Your task to perform on an android device: set the timer Image 0: 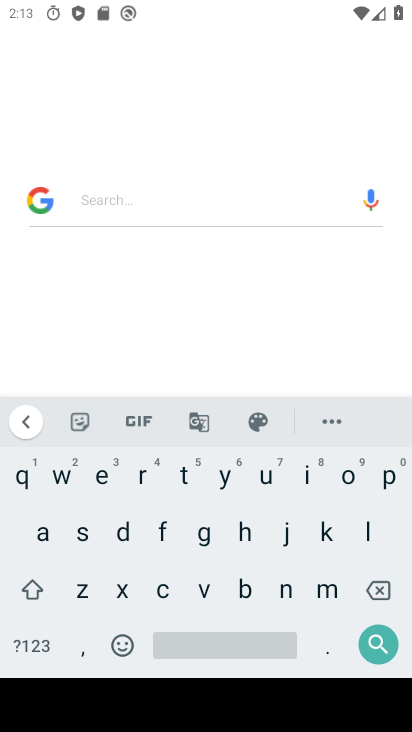
Step 0: click (107, 715)
Your task to perform on an android device: set the timer Image 1: 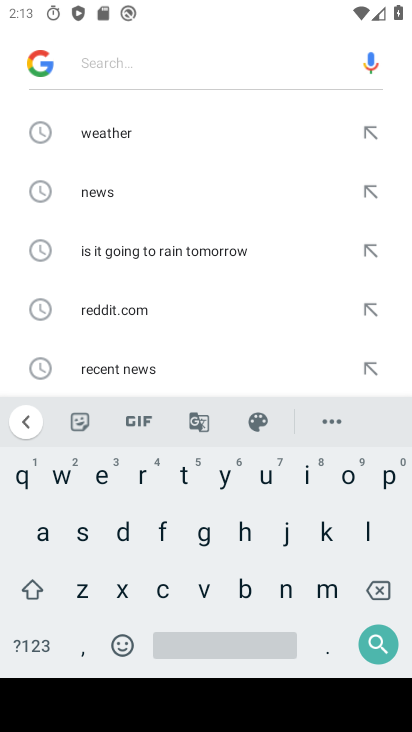
Step 1: press home button
Your task to perform on an android device: set the timer Image 2: 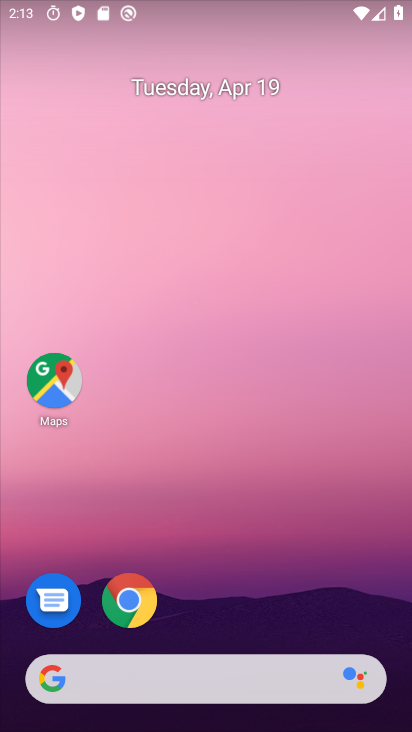
Step 2: drag from (226, 717) to (350, 390)
Your task to perform on an android device: set the timer Image 3: 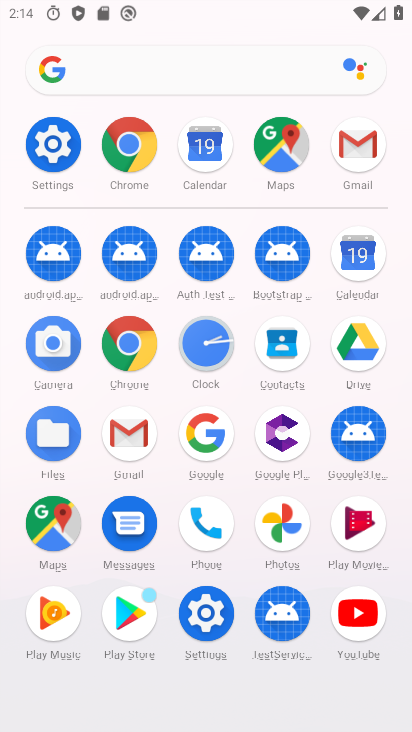
Step 3: click (220, 339)
Your task to perform on an android device: set the timer Image 4: 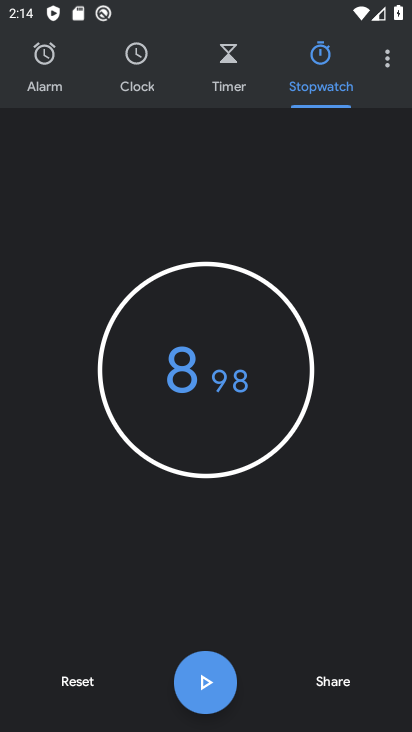
Step 4: click (245, 95)
Your task to perform on an android device: set the timer Image 5: 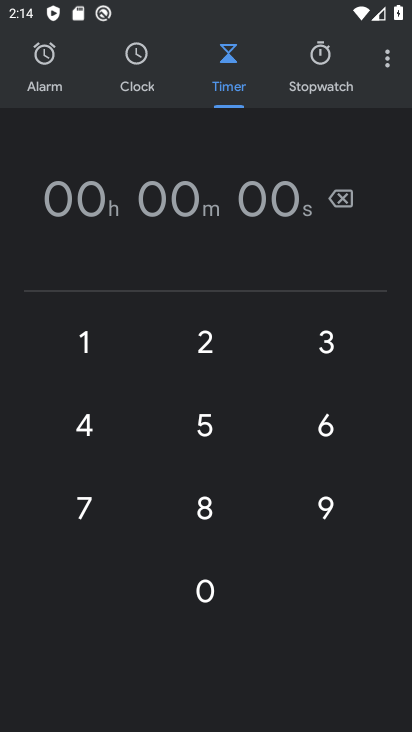
Step 5: click (231, 348)
Your task to perform on an android device: set the timer Image 6: 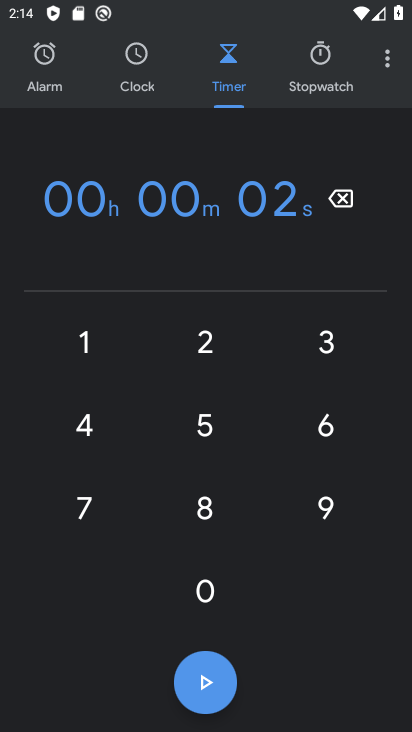
Step 6: click (190, 435)
Your task to perform on an android device: set the timer Image 7: 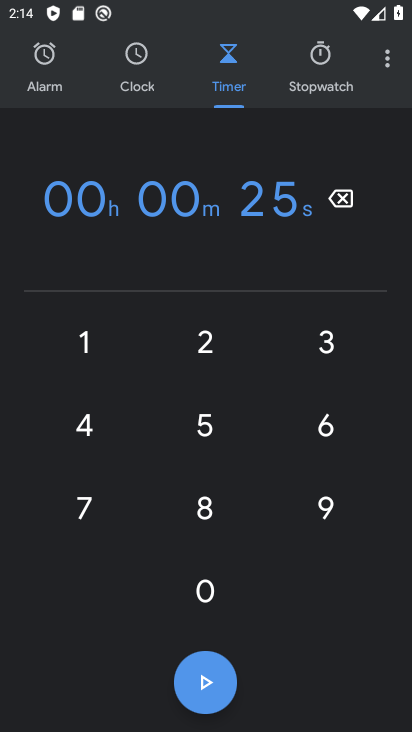
Step 7: click (300, 430)
Your task to perform on an android device: set the timer Image 8: 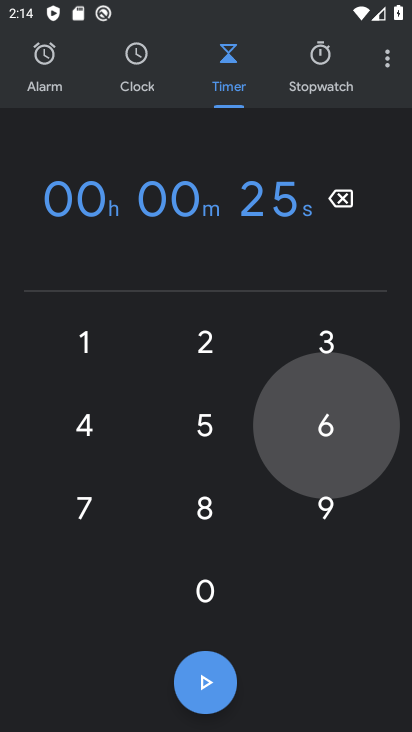
Step 8: click (228, 496)
Your task to perform on an android device: set the timer Image 9: 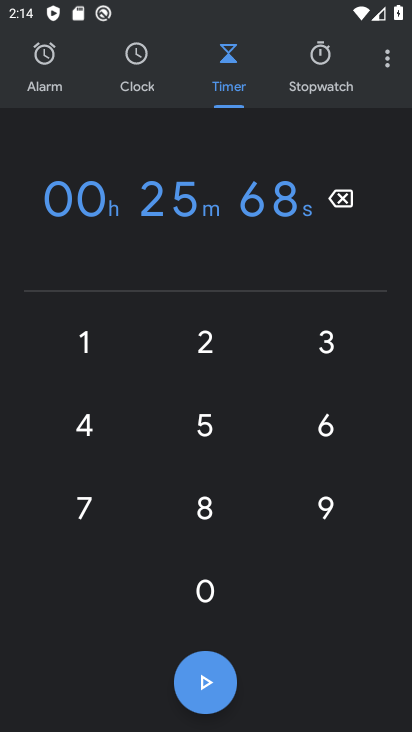
Step 9: click (217, 587)
Your task to perform on an android device: set the timer Image 10: 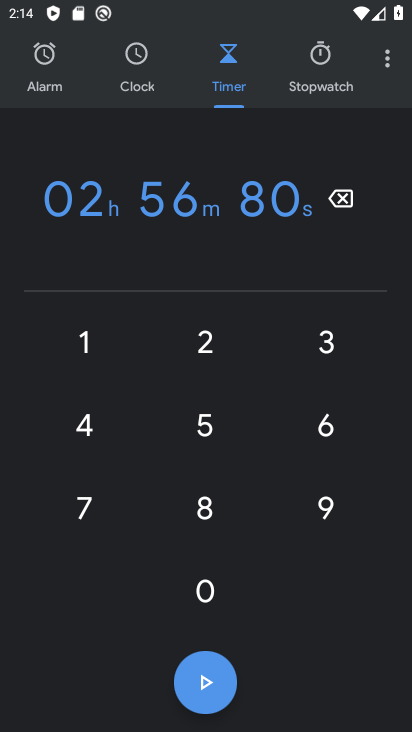
Step 10: click (200, 691)
Your task to perform on an android device: set the timer Image 11: 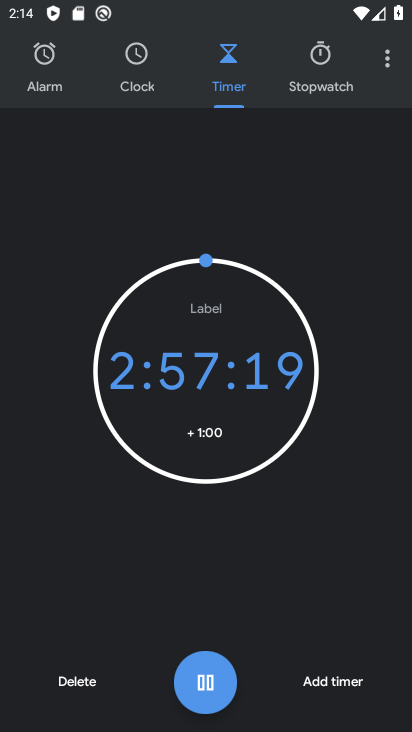
Step 11: task complete